Your task to perform on an android device: Open maps Image 0: 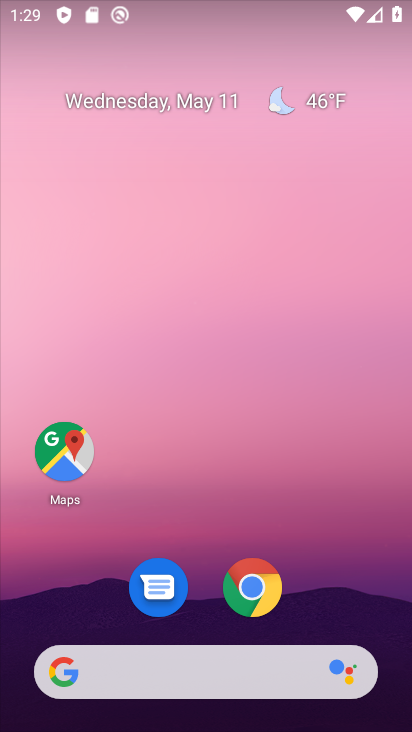
Step 0: press home button
Your task to perform on an android device: Open maps Image 1: 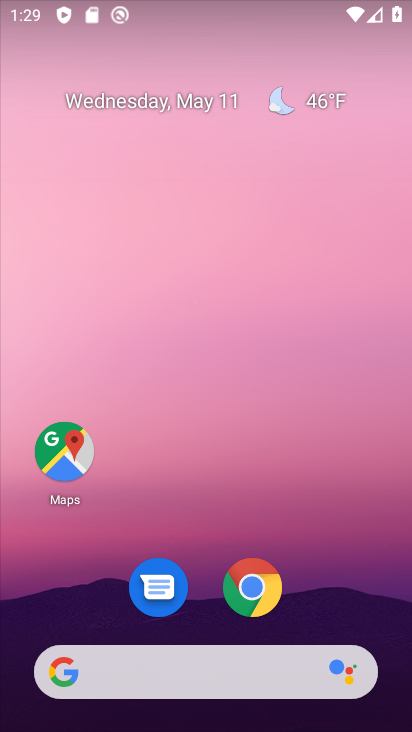
Step 1: drag from (373, 588) to (363, 114)
Your task to perform on an android device: Open maps Image 2: 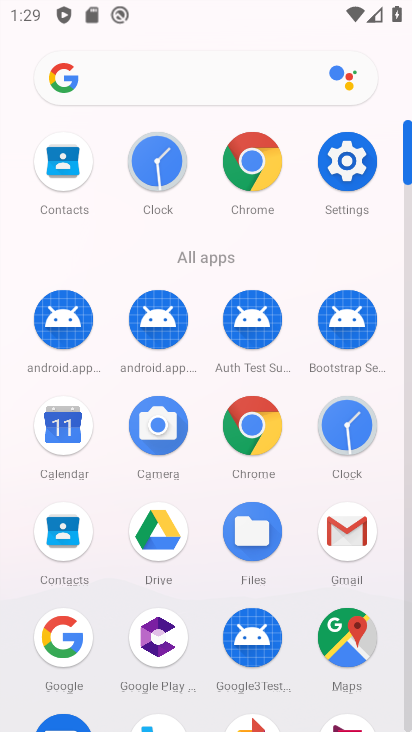
Step 2: click (364, 644)
Your task to perform on an android device: Open maps Image 3: 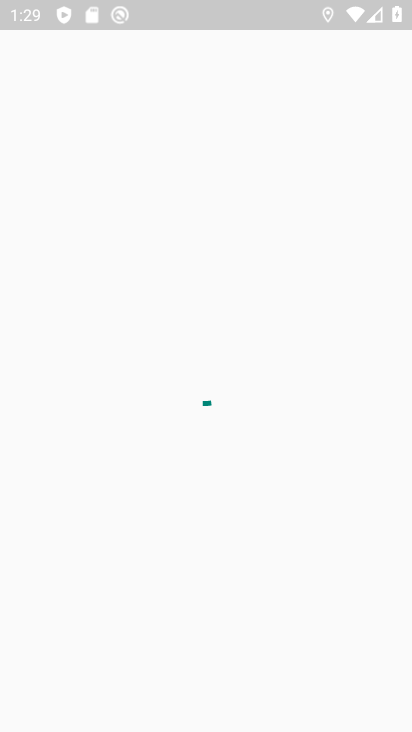
Step 3: task complete